Your task to perform on an android device: What's the news in theFalkland Islands? Image 0: 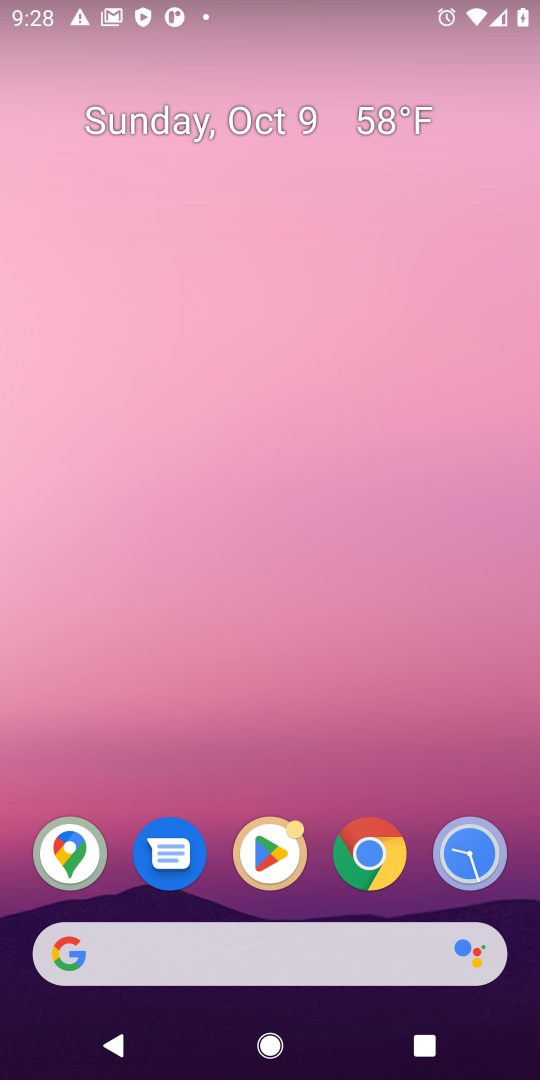
Step 0: click (366, 868)
Your task to perform on an android device: What's the news in theFalkland Islands? Image 1: 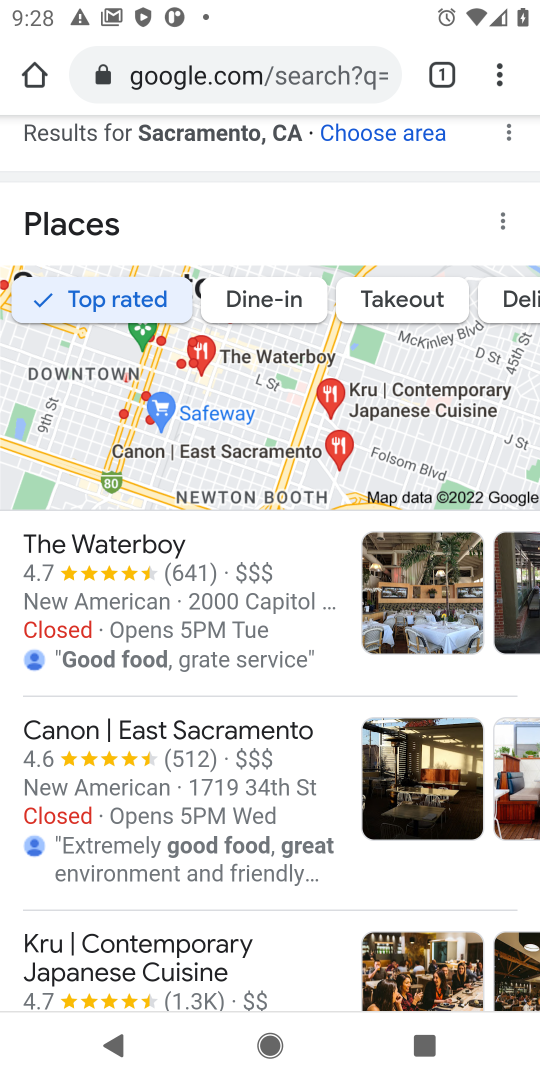
Step 1: click (353, 80)
Your task to perform on an android device: What's the news in theFalkland Islands? Image 2: 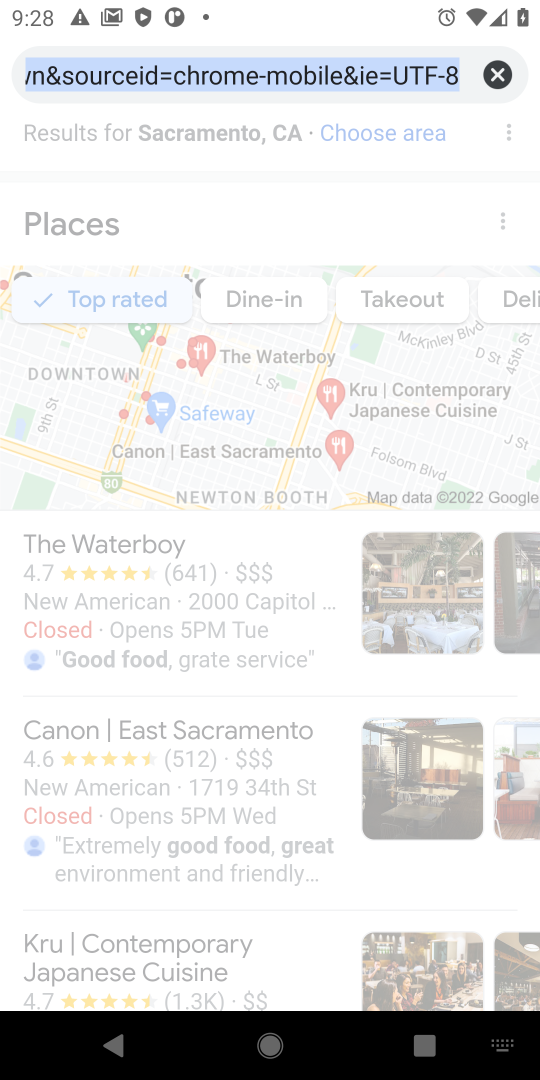
Step 2: type "thefalkland islands"
Your task to perform on an android device: What's the news in theFalkland Islands? Image 3: 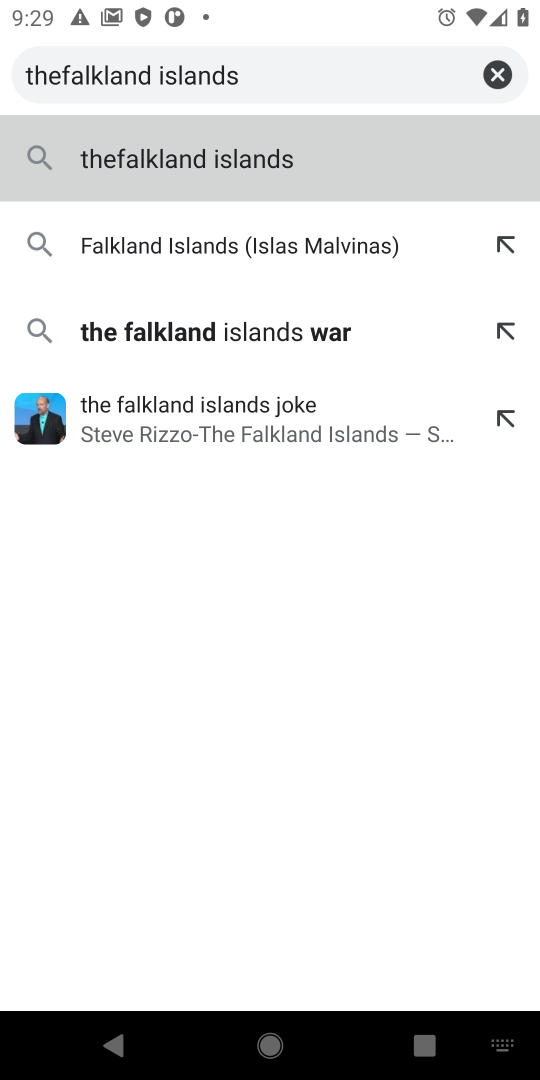
Step 3: type " news"
Your task to perform on an android device: What's the news in theFalkland Islands? Image 4: 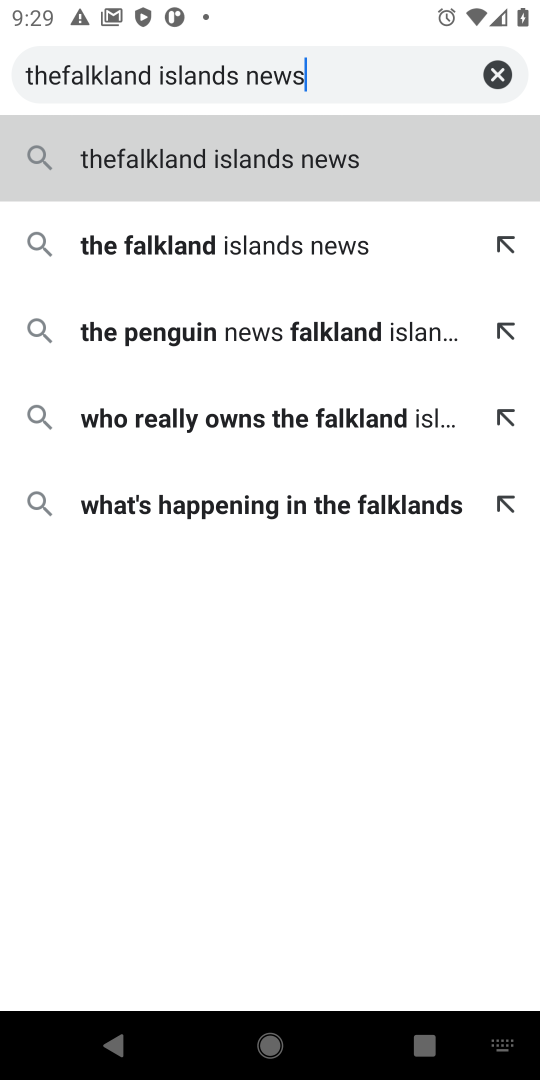
Step 4: click (415, 155)
Your task to perform on an android device: What's the news in theFalkland Islands? Image 5: 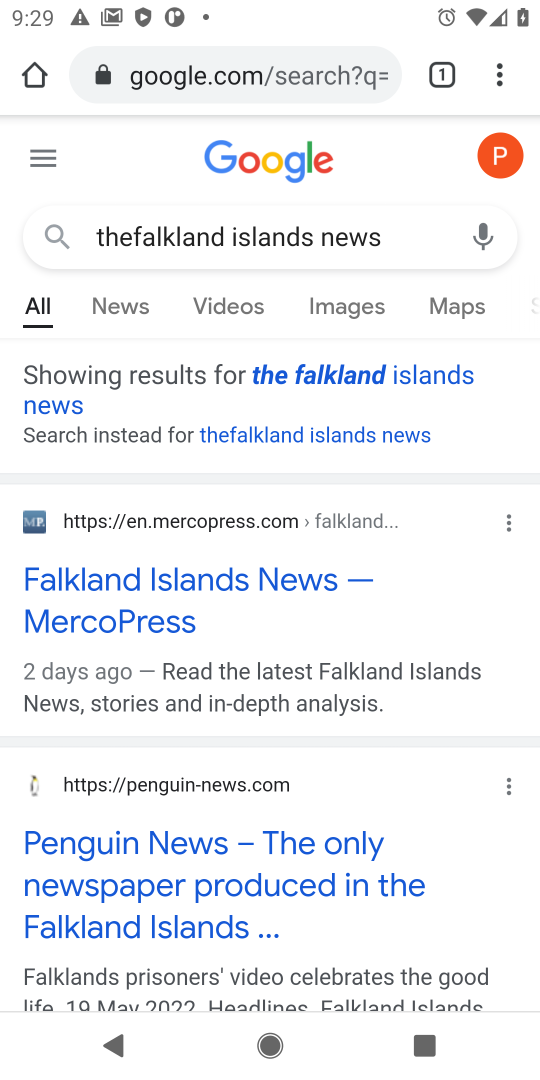
Step 5: click (298, 382)
Your task to perform on an android device: What's the news in theFalkland Islands? Image 6: 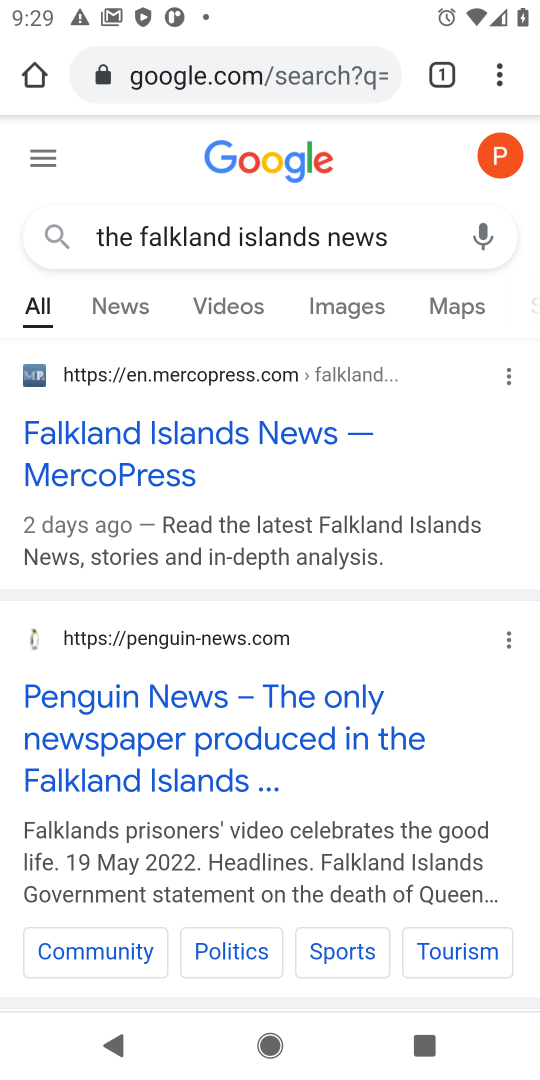
Step 6: click (126, 297)
Your task to perform on an android device: What's the news in theFalkland Islands? Image 7: 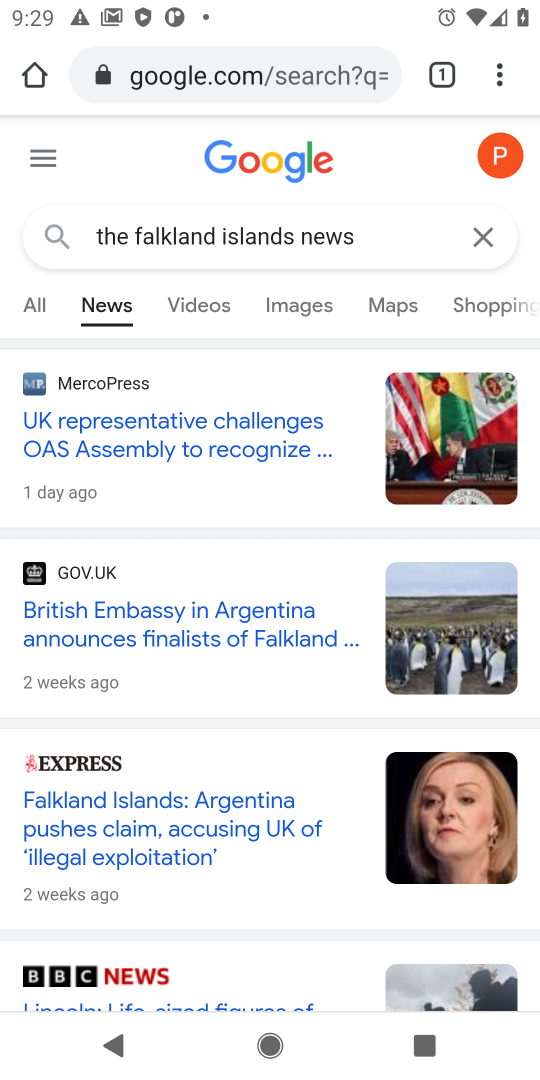
Step 7: task complete